Your task to perform on an android device: View the shopping cart on newegg. Image 0: 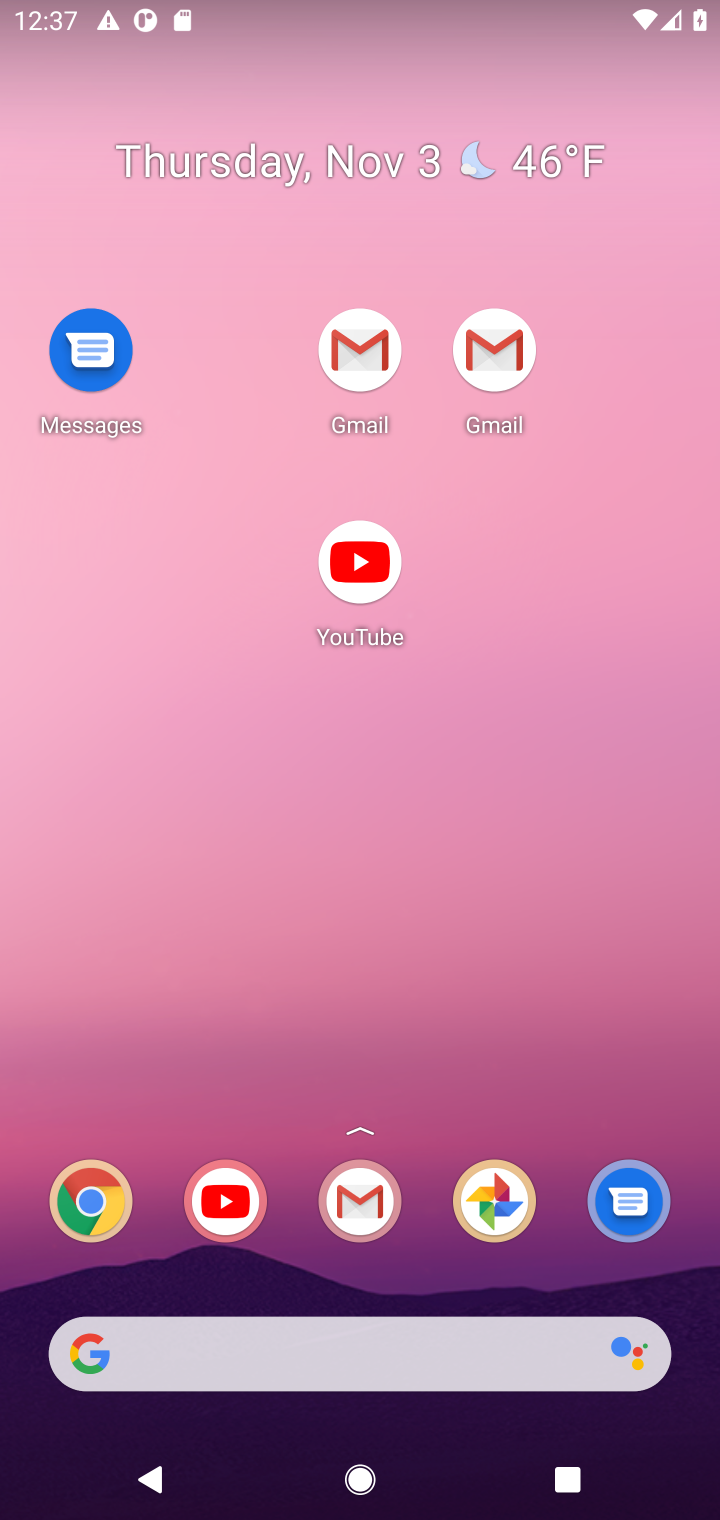
Step 0: drag from (438, 1235) to (502, 462)
Your task to perform on an android device: View the shopping cart on newegg. Image 1: 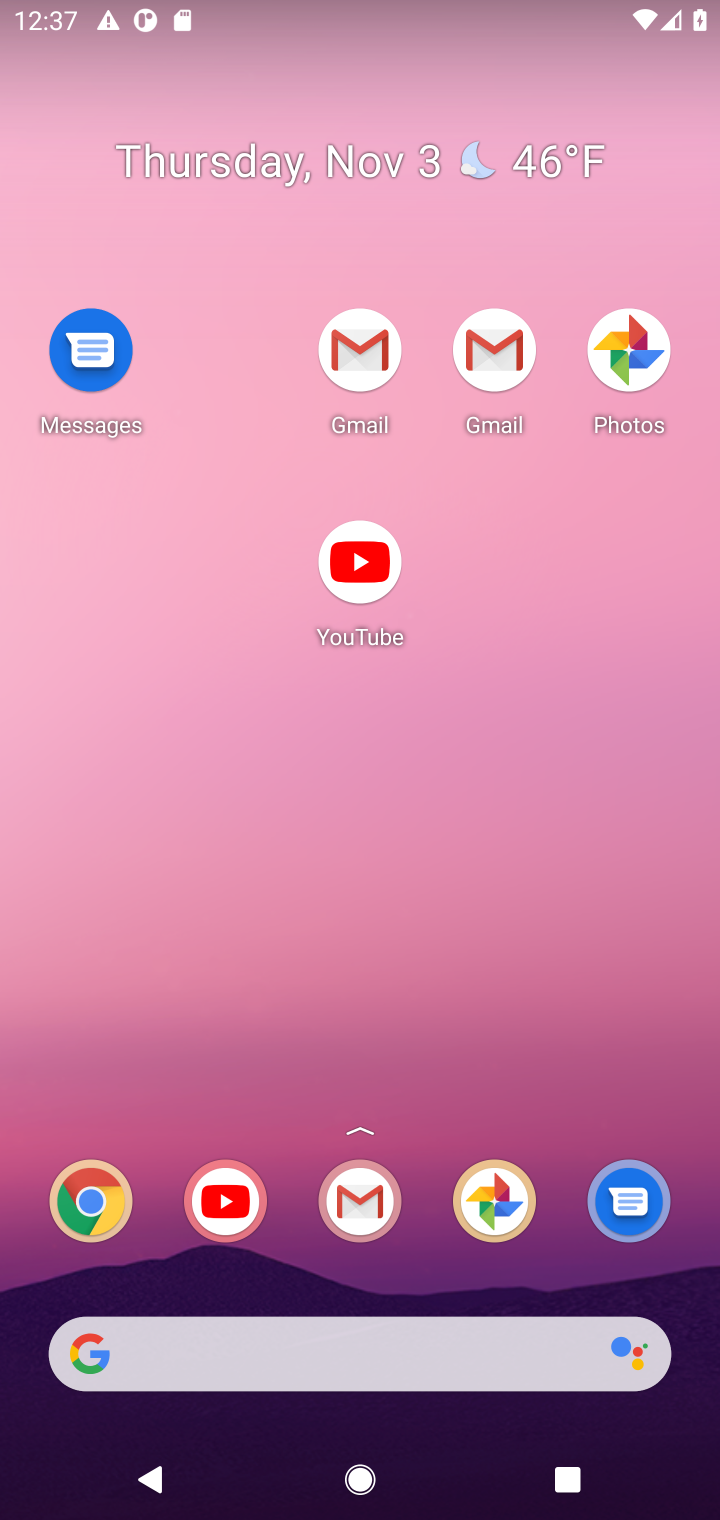
Step 1: drag from (435, 1234) to (455, 426)
Your task to perform on an android device: View the shopping cart on newegg. Image 2: 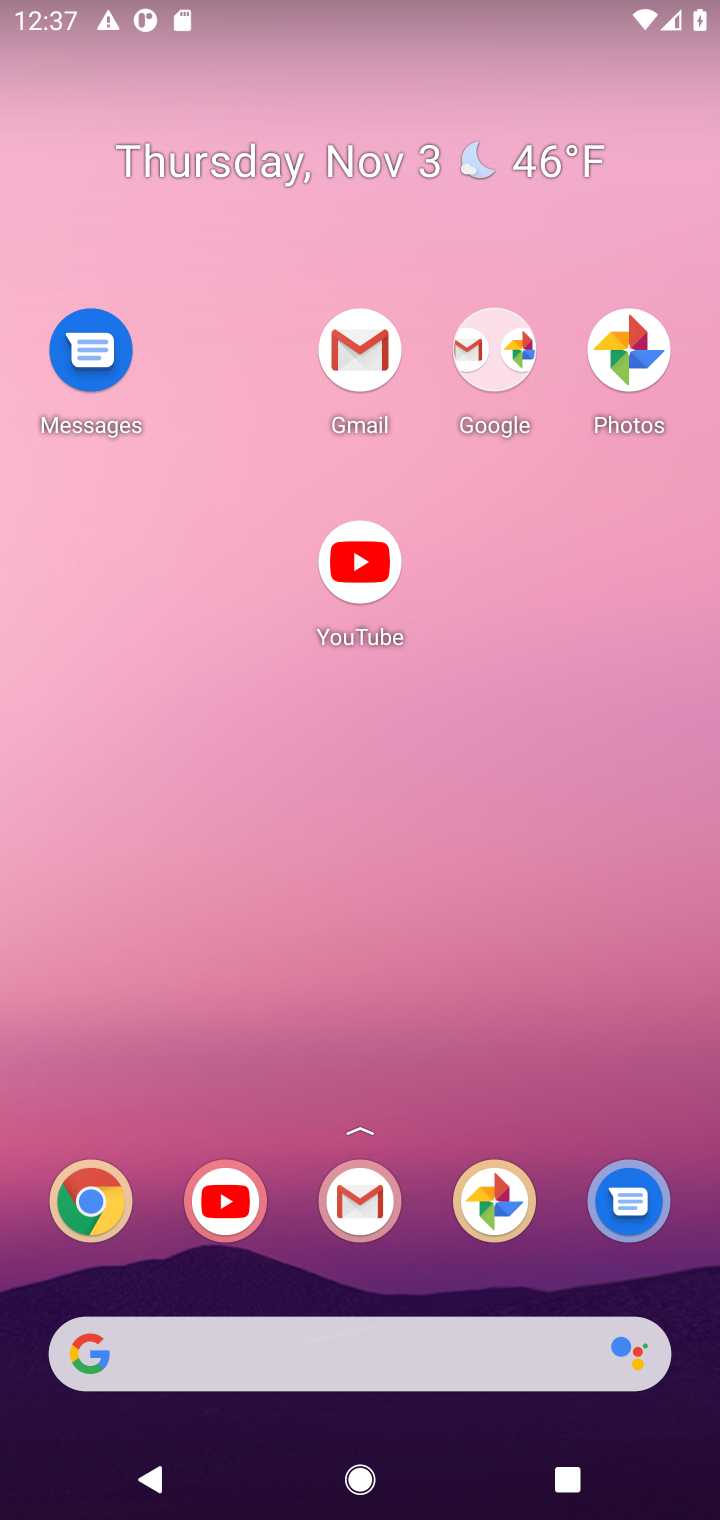
Step 2: drag from (493, 354) to (372, 87)
Your task to perform on an android device: View the shopping cart on newegg. Image 3: 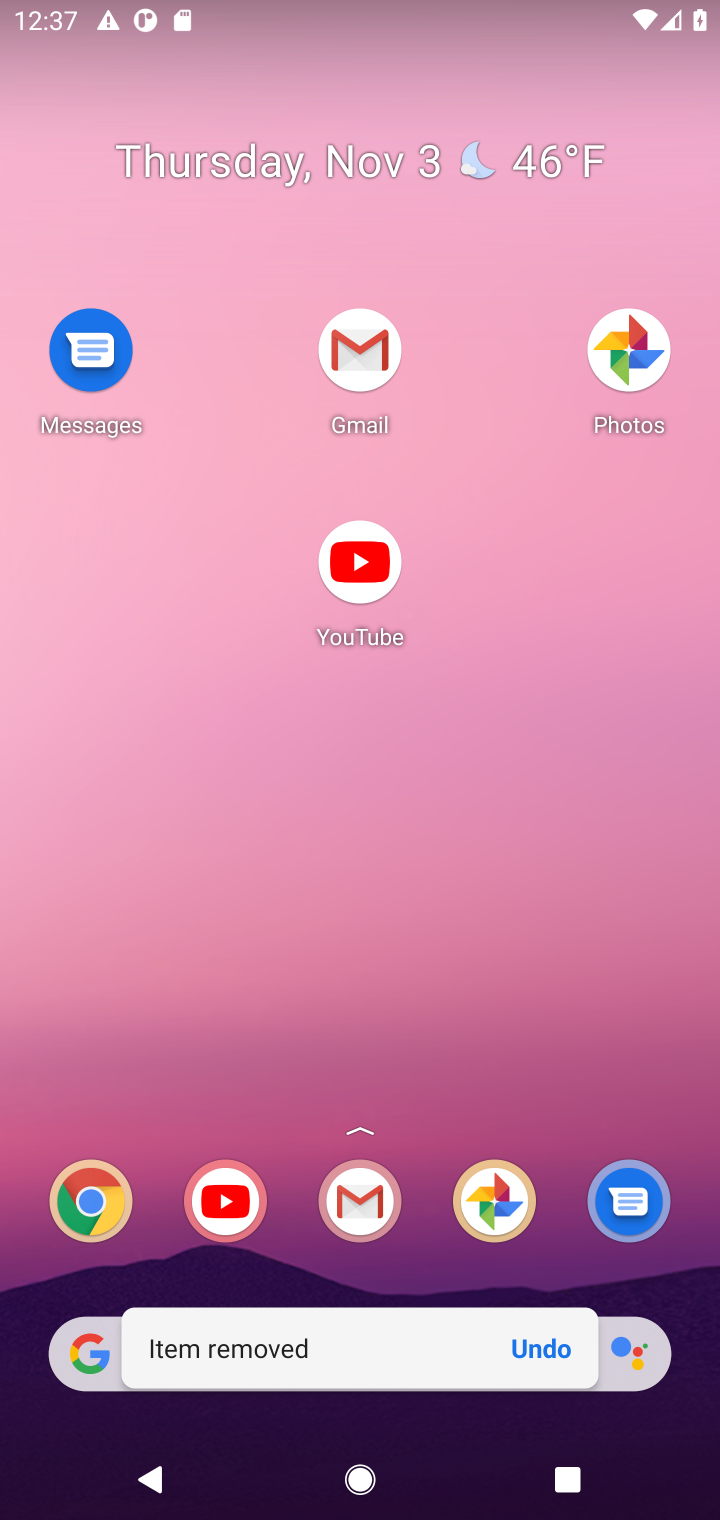
Step 3: drag from (610, 397) to (504, 422)
Your task to perform on an android device: View the shopping cart on newegg. Image 4: 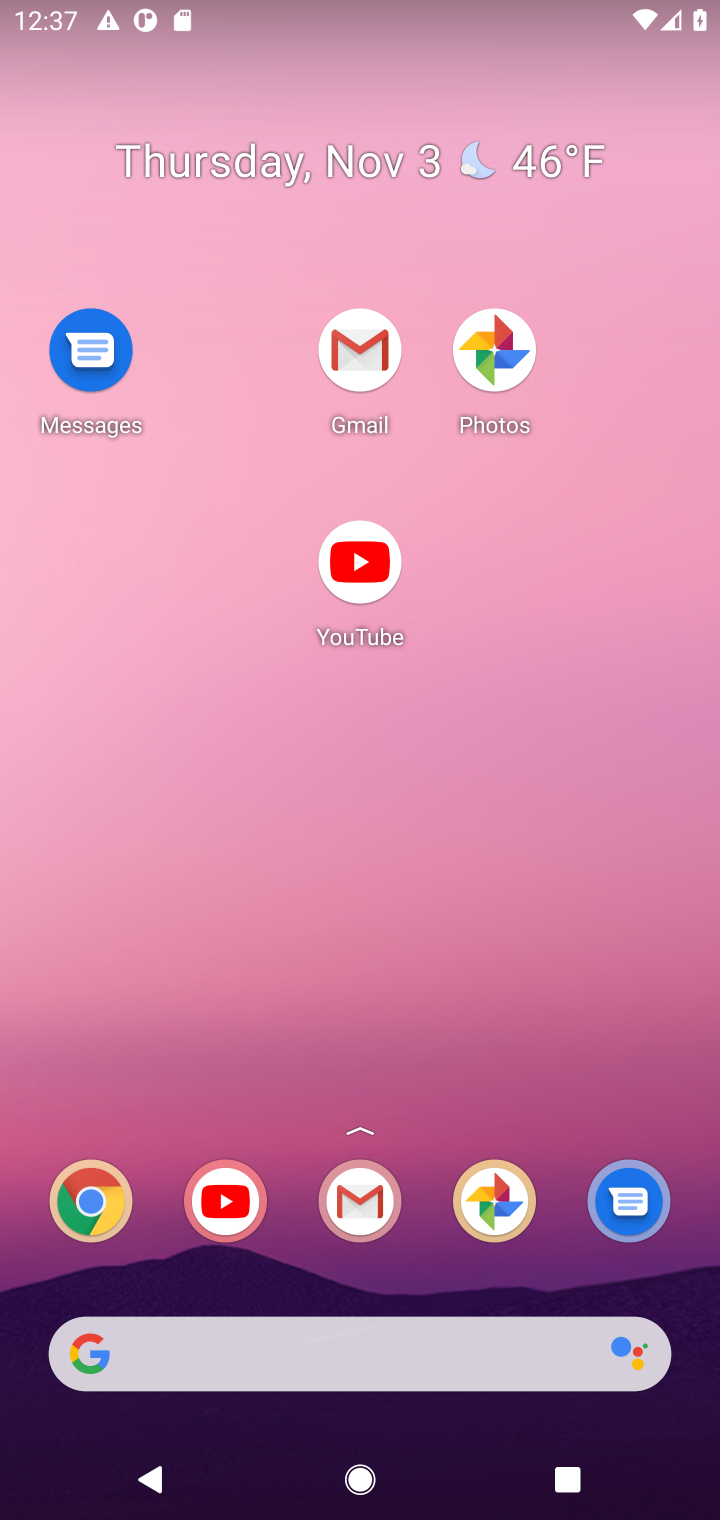
Step 4: drag from (424, 1283) to (461, 328)
Your task to perform on an android device: View the shopping cart on newegg. Image 5: 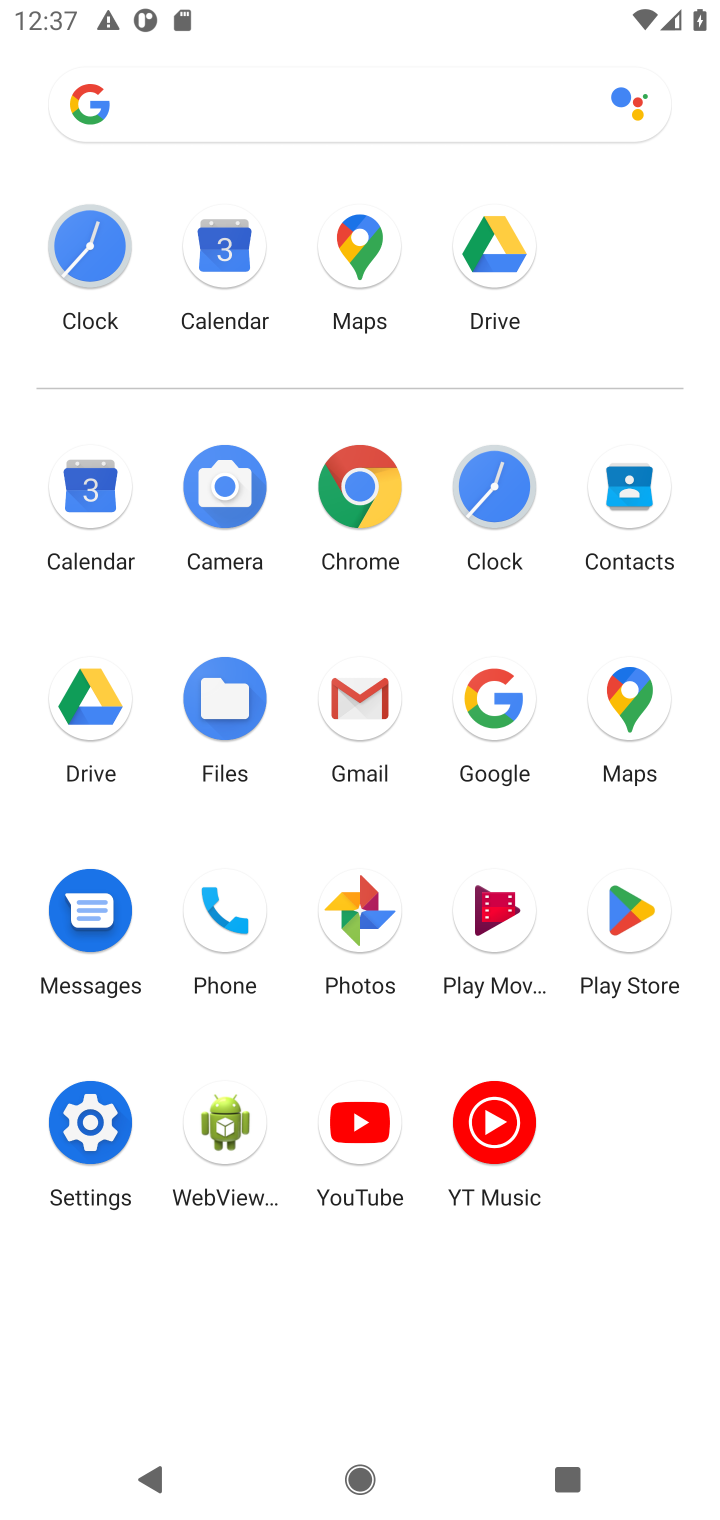
Step 5: click (363, 470)
Your task to perform on an android device: View the shopping cart on newegg. Image 6: 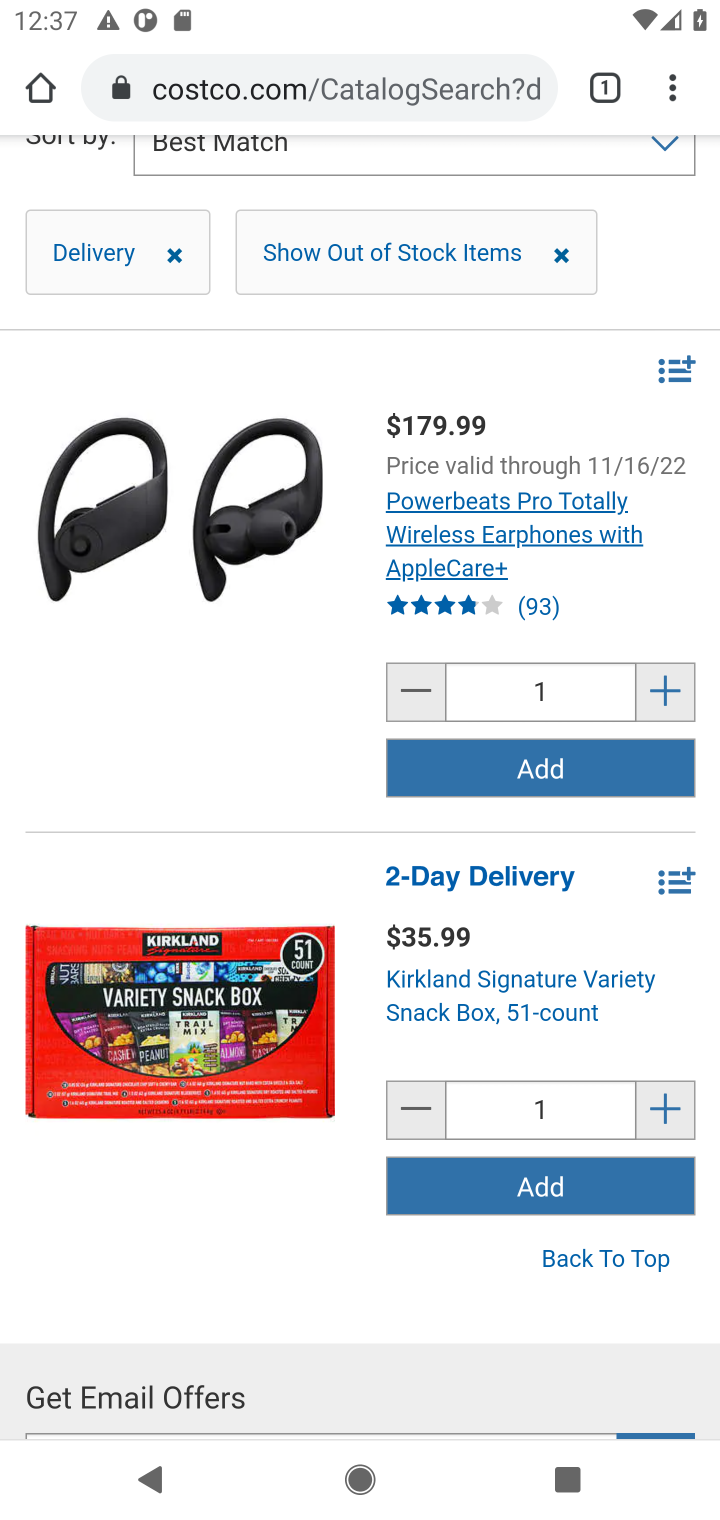
Step 6: click (354, 85)
Your task to perform on an android device: View the shopping cart on newegg. Image 7: 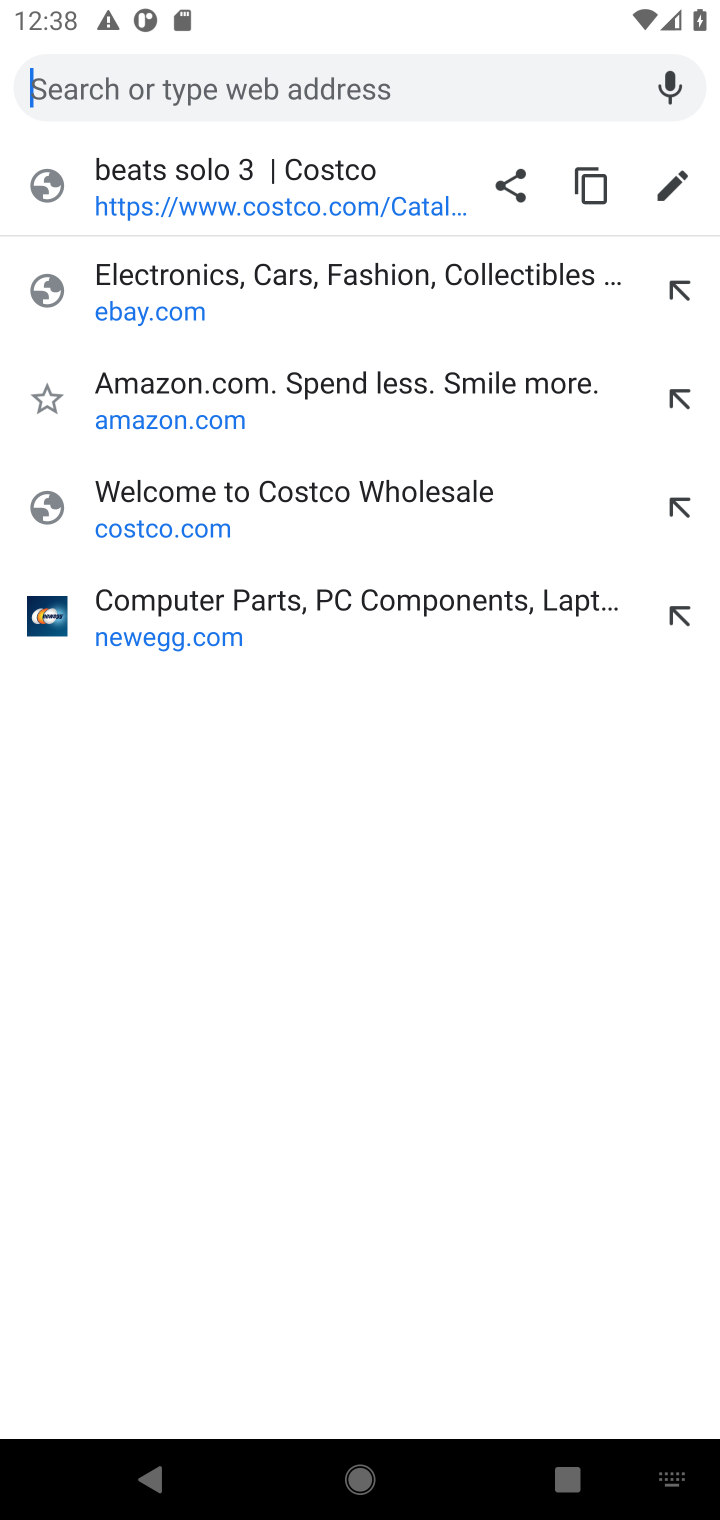
Step 7: type "newegg.com"
Your task to perform on an android device: View the shopping cart on newegg. Image 8: 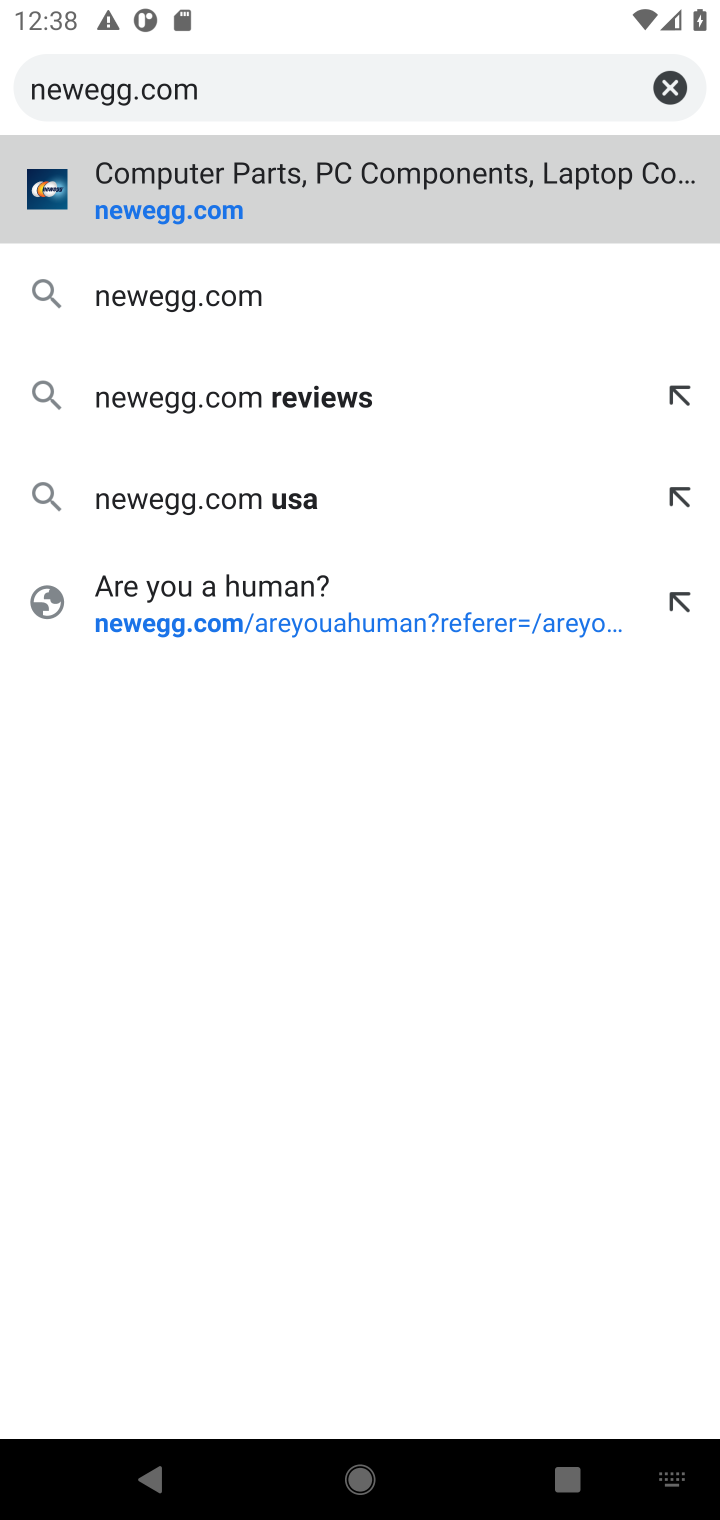
Step 8: press enter
Your task to perform on an android device: View the shopping cart on newegg. Image 9: 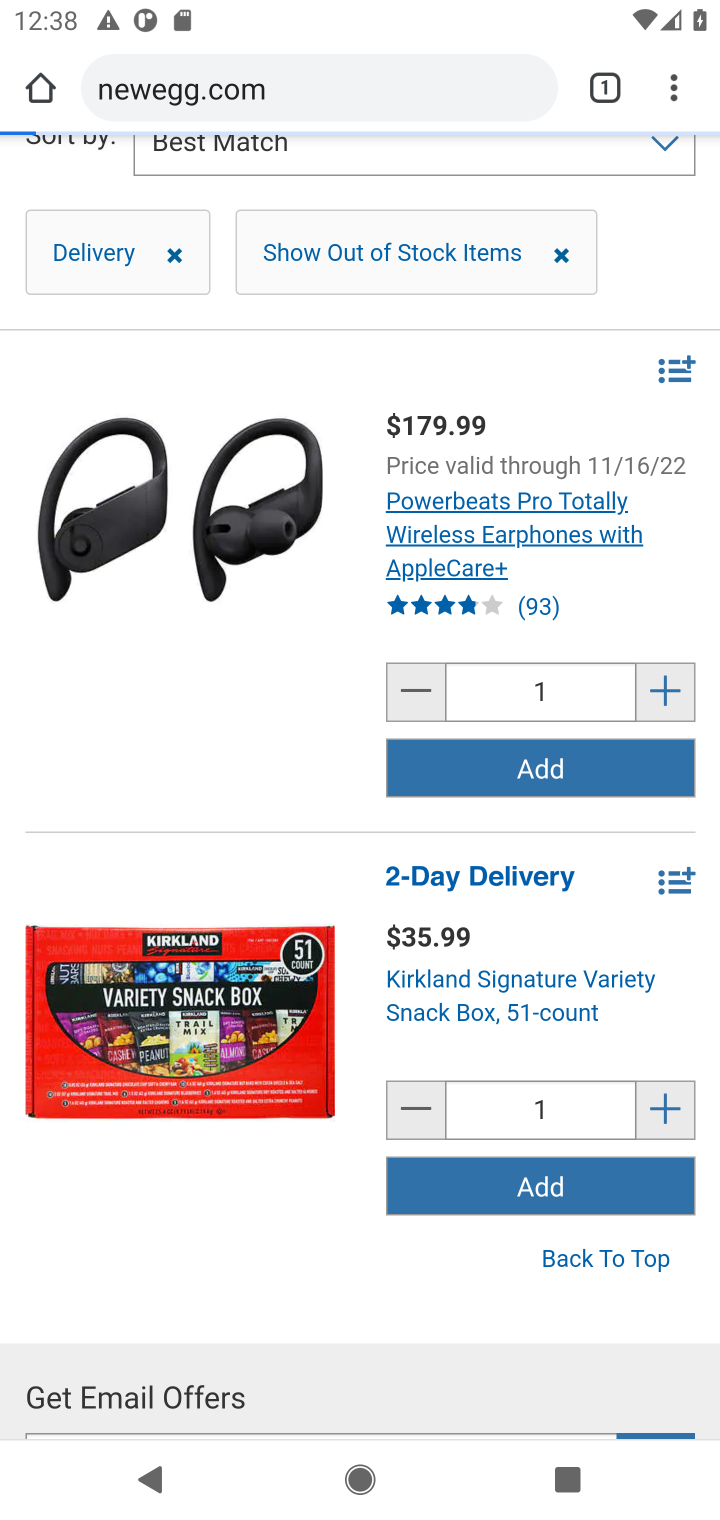
Step 9: press enter
Your task to perform on an android device: View the shopping cart on newegg. Image 10: 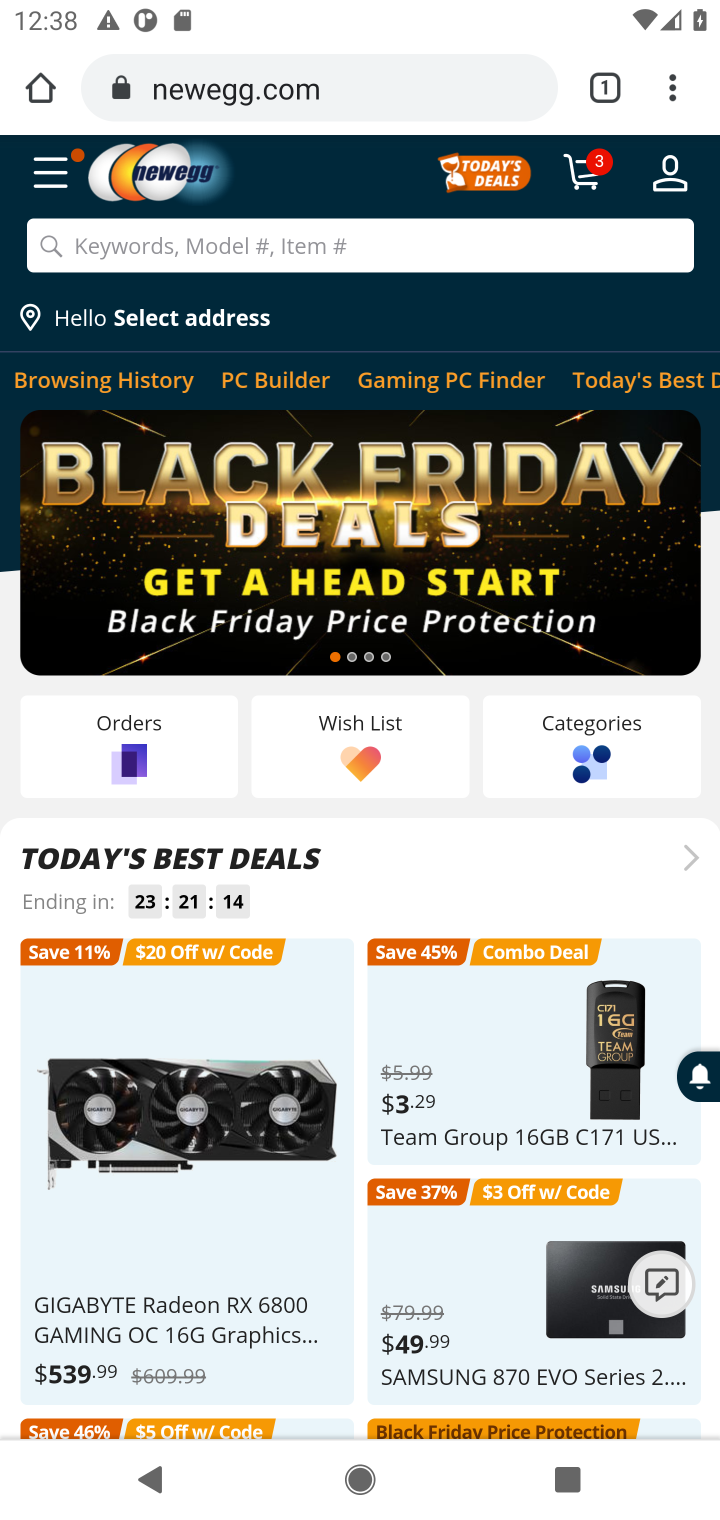
Step 10: click (576, 170)
Your task to perform on an android device: View the shopping cart on newegg. Image 11: 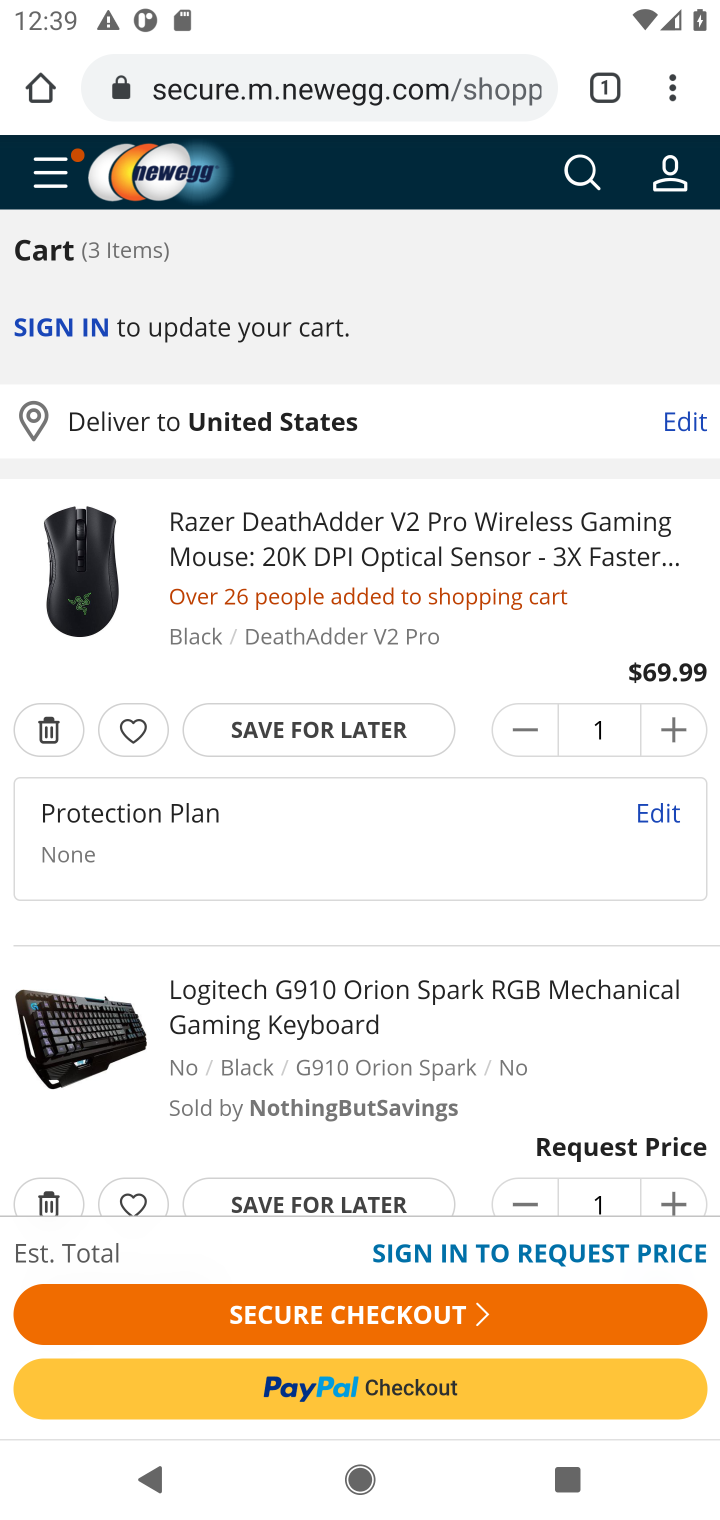
Step 11: task complete